Your task to perform on an android device: toggle wifi Image 0: 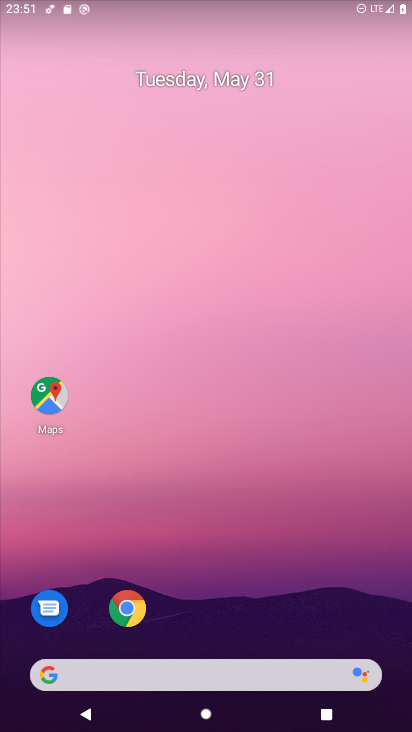
Step 0: drag from (290, 613) to (262, 185)
Your task to perform on an android device: toggle wifi Image 1: 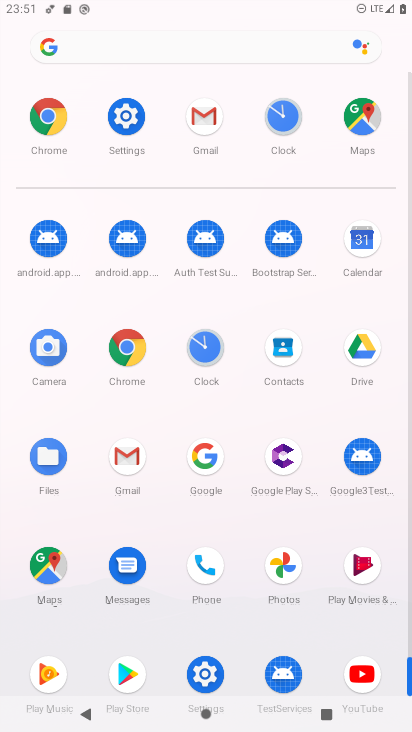
Step 1: drag from (316, 7) to (365, 321)
Your task to perform on an android device: toggle wifi Image 2: 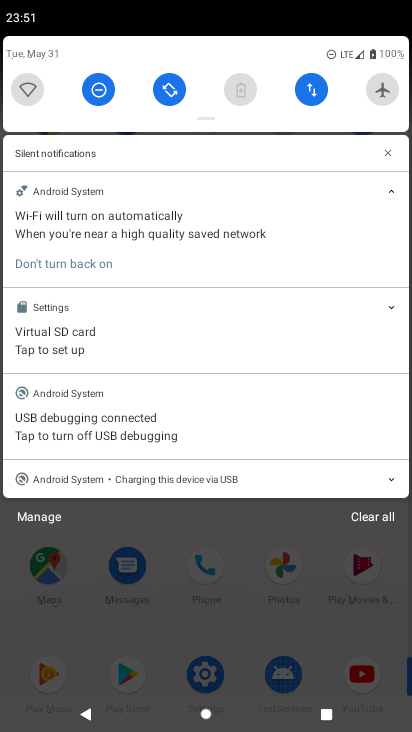
Step 2: click (36, 90)
Your task to perform on an android device: toggle wifi Image 3: 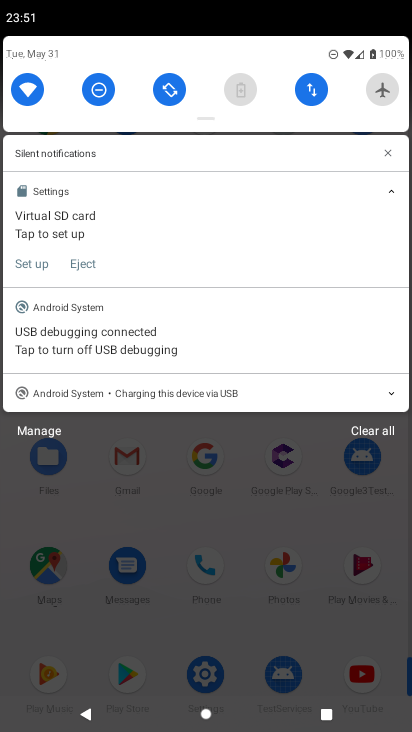
Step 3: task complete